Your task to perform on an android device: check google app version Image 0: 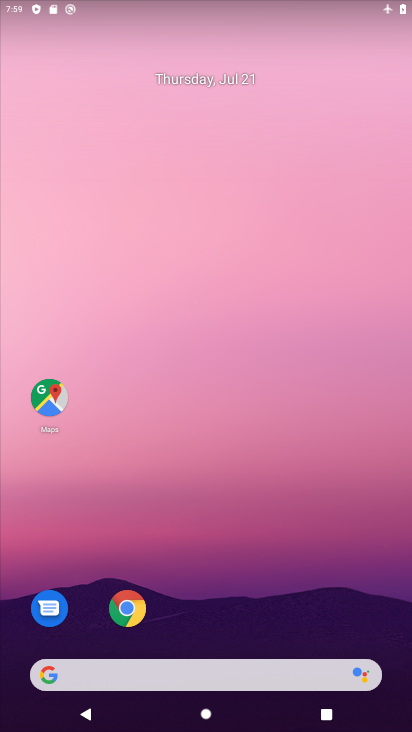
Step 0: drag from (198, 641) to (222, 3)
Your task to perform on an android device: check google app version Image 1: 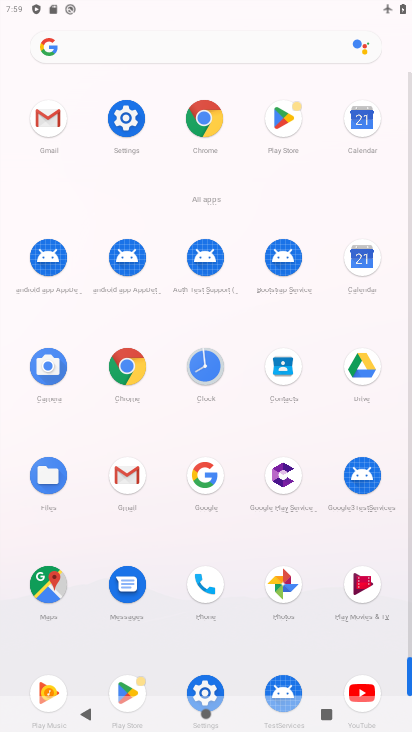
Step 1: click (203, 472)
Your task to perform on an android device: check google app version Image 2: 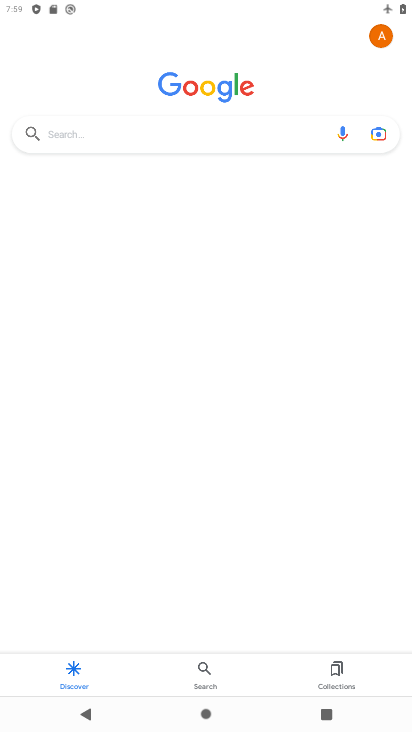
Step 2: click (378, 40)
Your task to perform on an android device: check google app version Image 3: 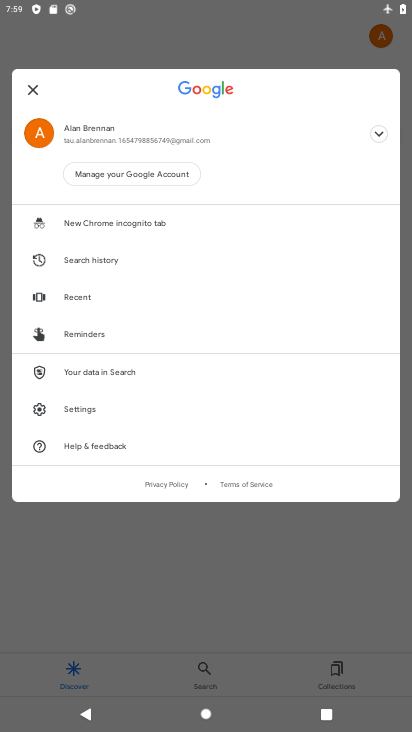
Step 3: click (105, 404)
Your task to perform on an android device: check google app version Image 4: 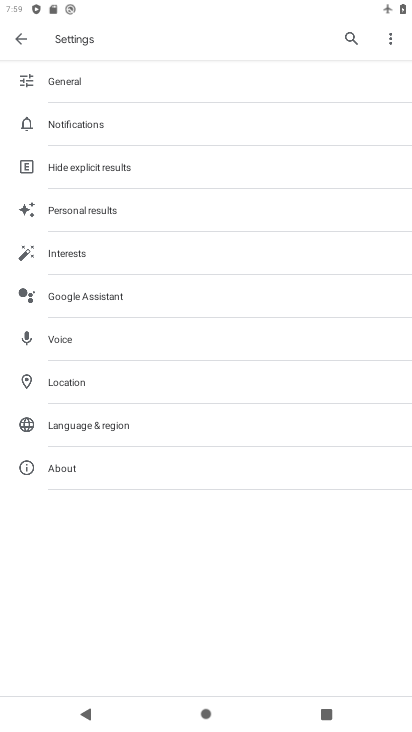
Step 4: click (78, 467)
Your task to perform on an android device: check google app version Image 5: 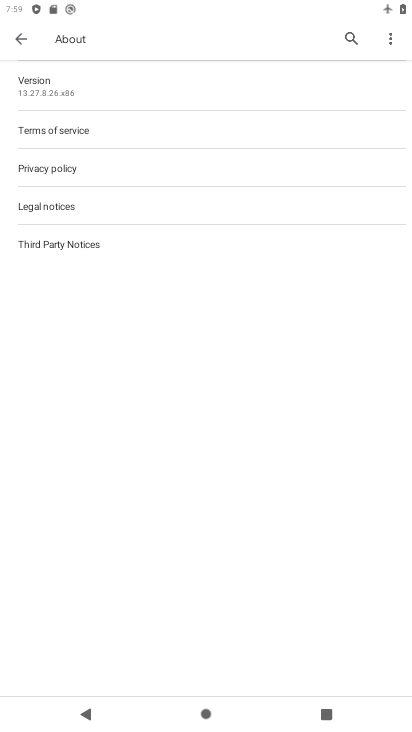
Step 5: task complete